Your task to perform on an android device: Open the map Image 0: 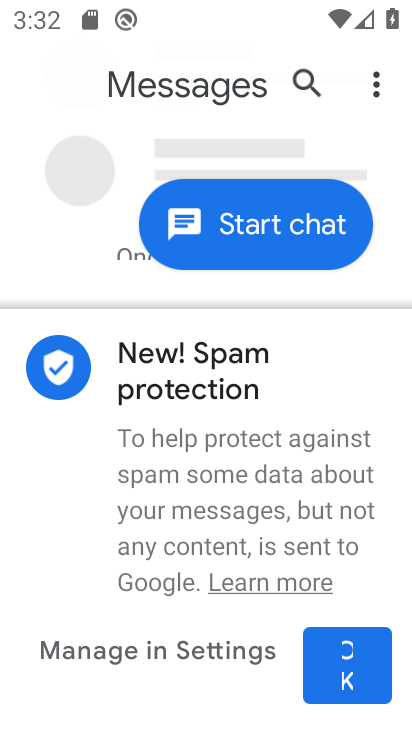
Step 0: press home button
Your task to perform on an android device: Open the map Image 1: 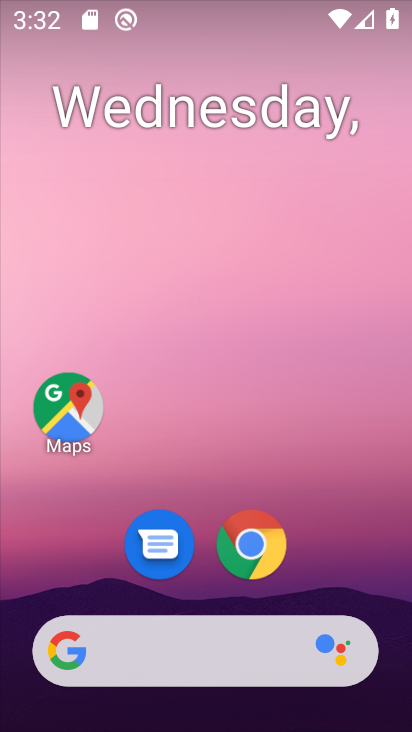
Step 1: click (66, 424)
Your task to perform on an android device: Open the map Image 2: 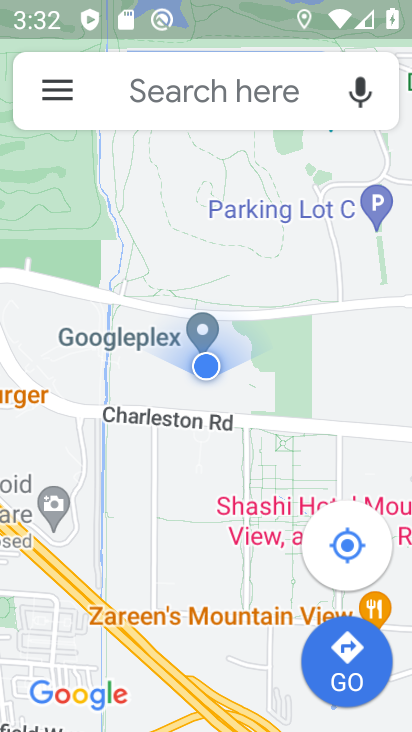
Step 2: task complete